Your task to perform on an android device: toggle show notifications on the lock screen Image 0: 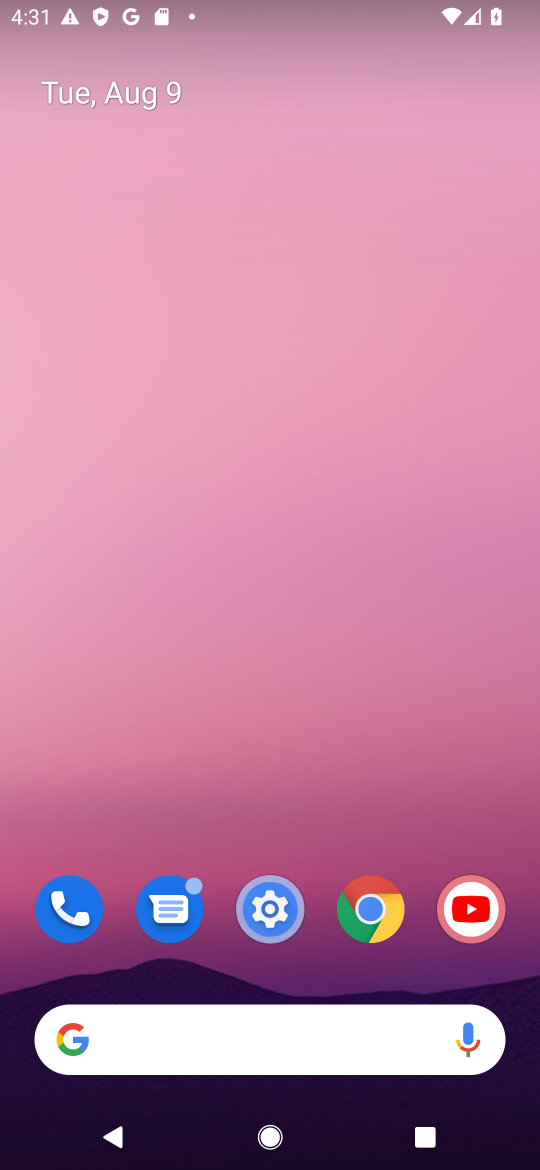
Step 0: click (282, 895)
Your task to perform on an android device: toggle show notifications on the lock screen Image 1: 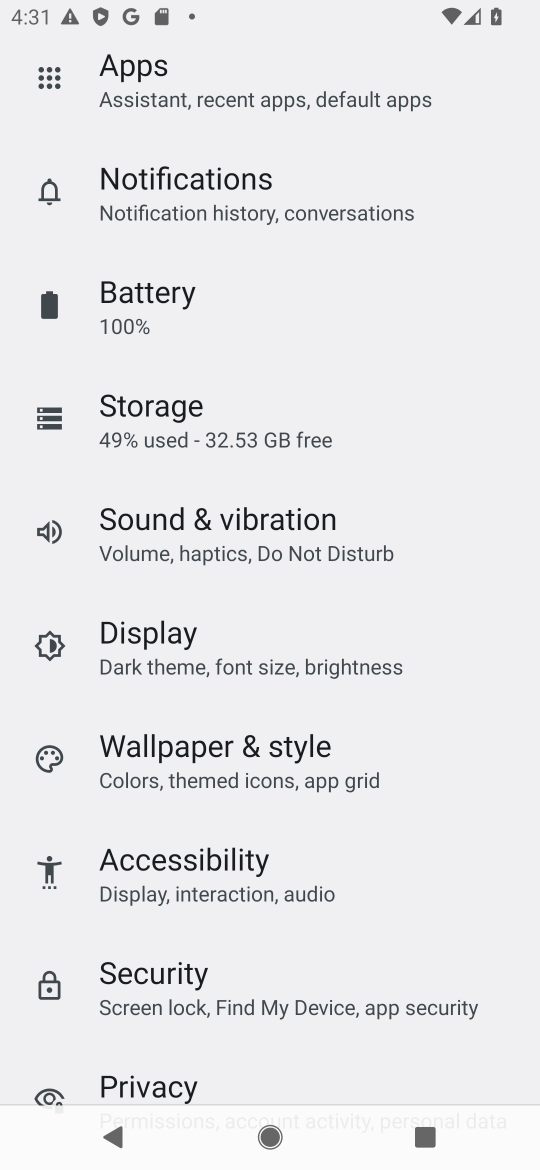
Step 1: drag from (338, 842) to (494, 111)
Your task to perform on an android device: toggle show notifications on the lock screen Image 2: 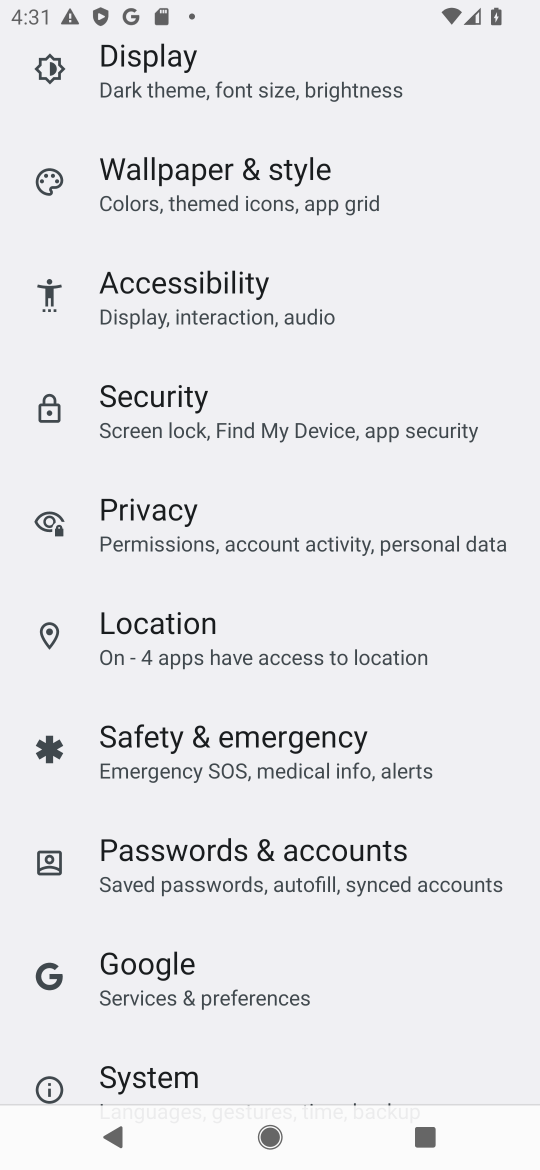
Step 2: drag from (340, 969) to (534, 356)
Your task to perform on an android device: toggle show notifications on the lock screen Image 3: 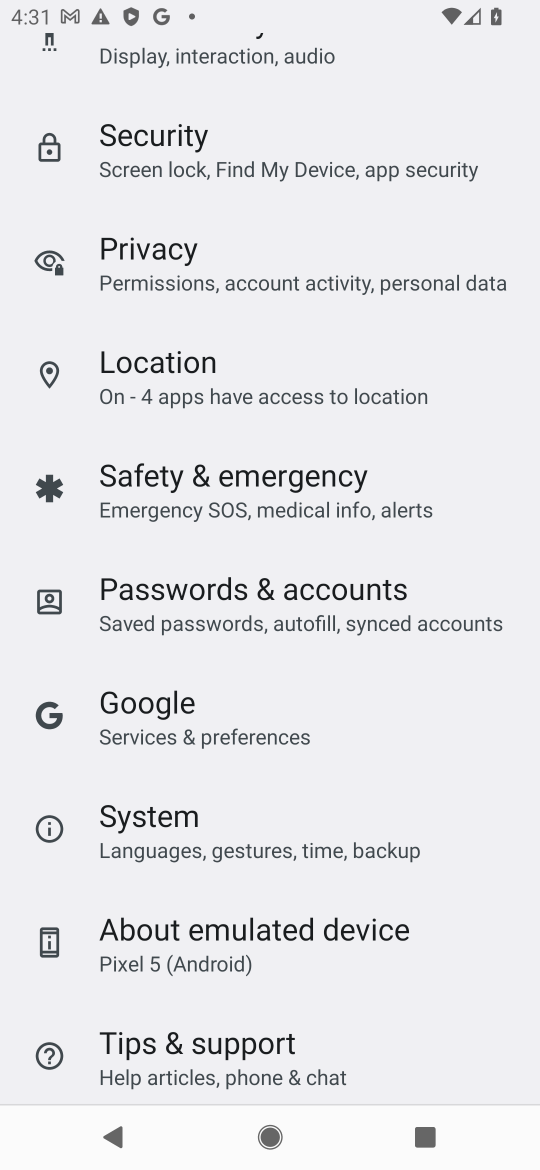
Step 3: drag from (275, 360) to (222, 789)
Your task to perform on an android device: toggle show notifications on the lock screen Image 4: 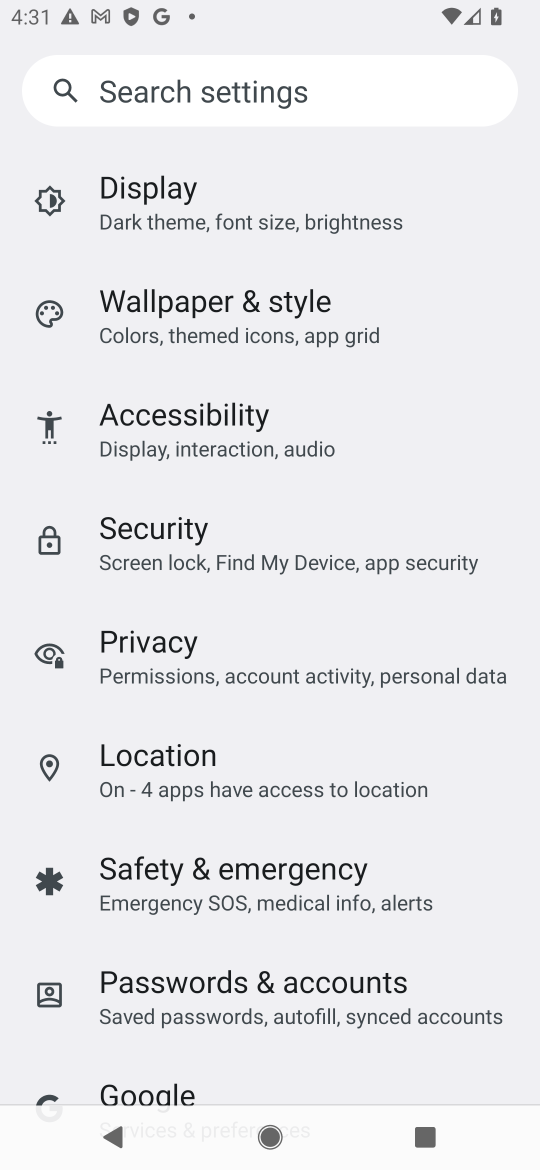
Step 4: drag from (330, 246) to (230, 555)
Your task to perform on an android device: toggle show notifications on the lock screen Image 5: 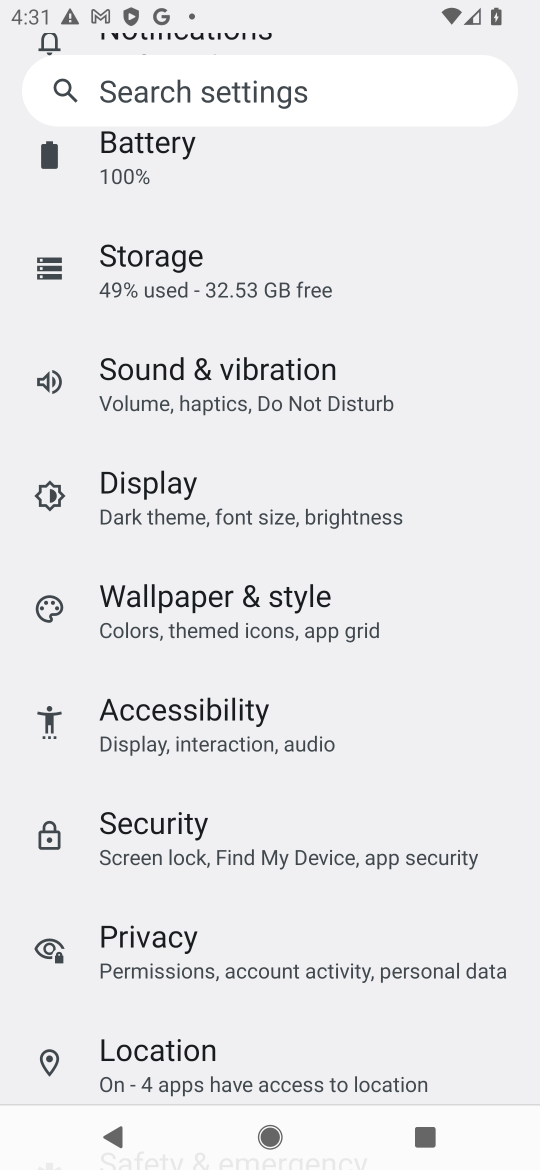
Step 5: drag from (76, 194) to (33, 456)
Your task to perform on an android device: toggle show notifications on the lock screen Image 6: 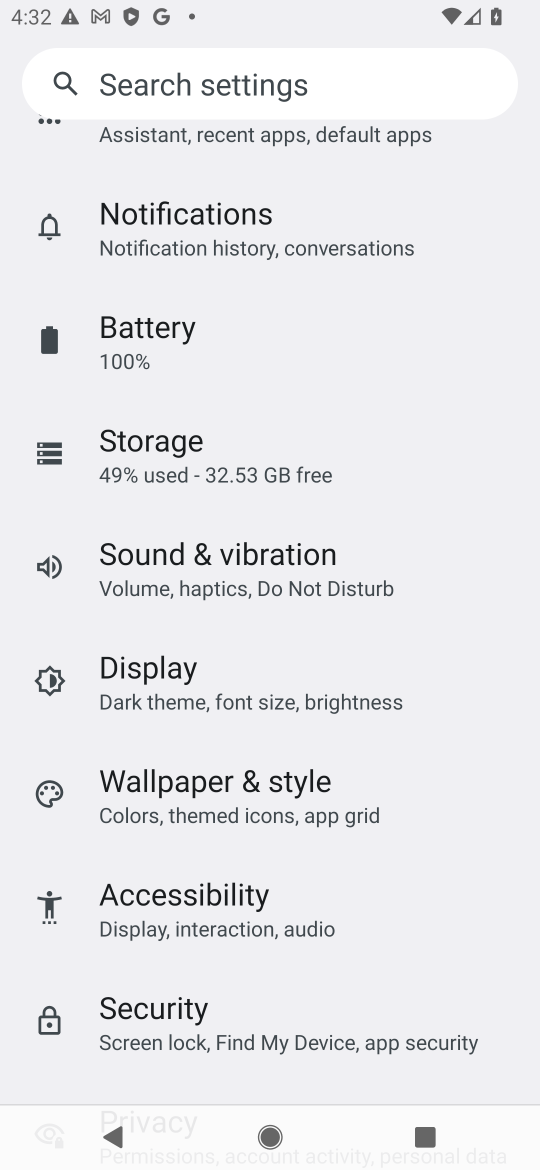
Step 6: click (226, 225)
Your task to perform on an android device: toggle show notifications on the lock screen Image 7: 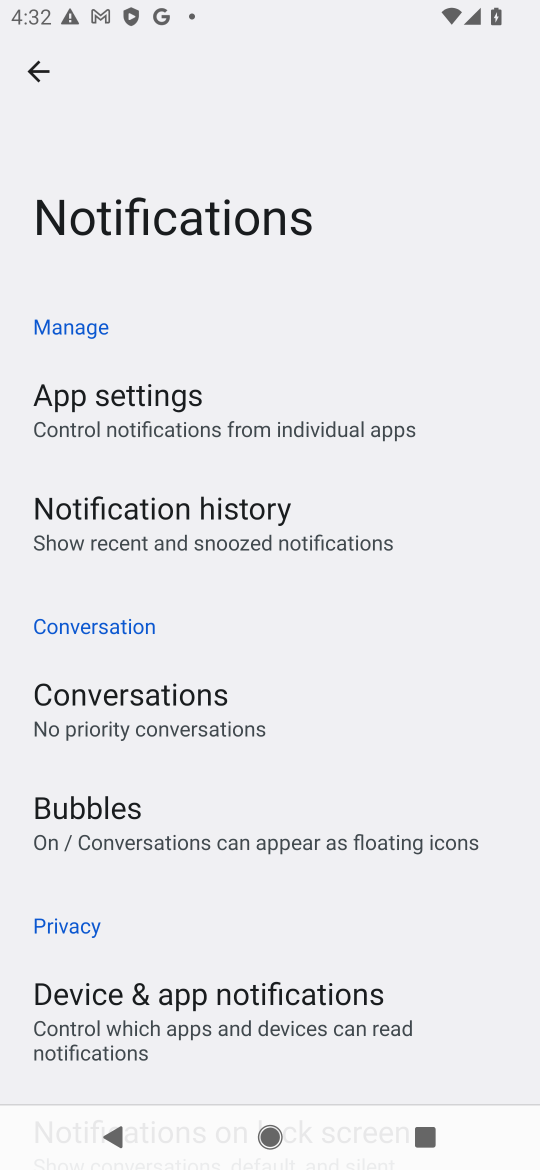
Step 7: drag from (100, 951) to (135, 496)
Your task to perform on an android device: toggle show notifications on the lock screen Image 8: 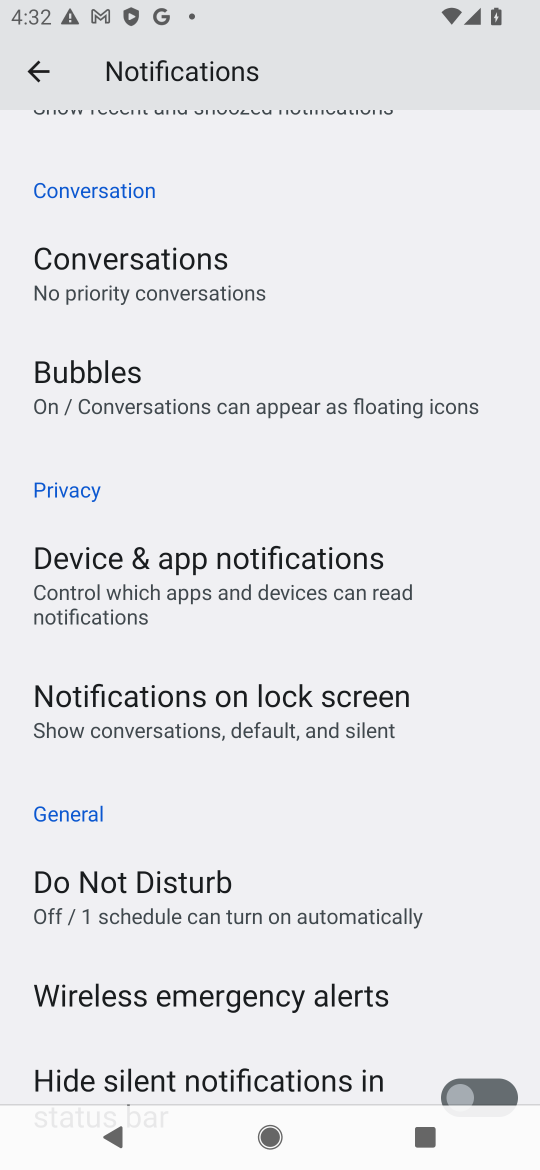
Step 8: click (131, 826)
Your task to perform on an android device: toggle show notifications on the lock screen Image 9: 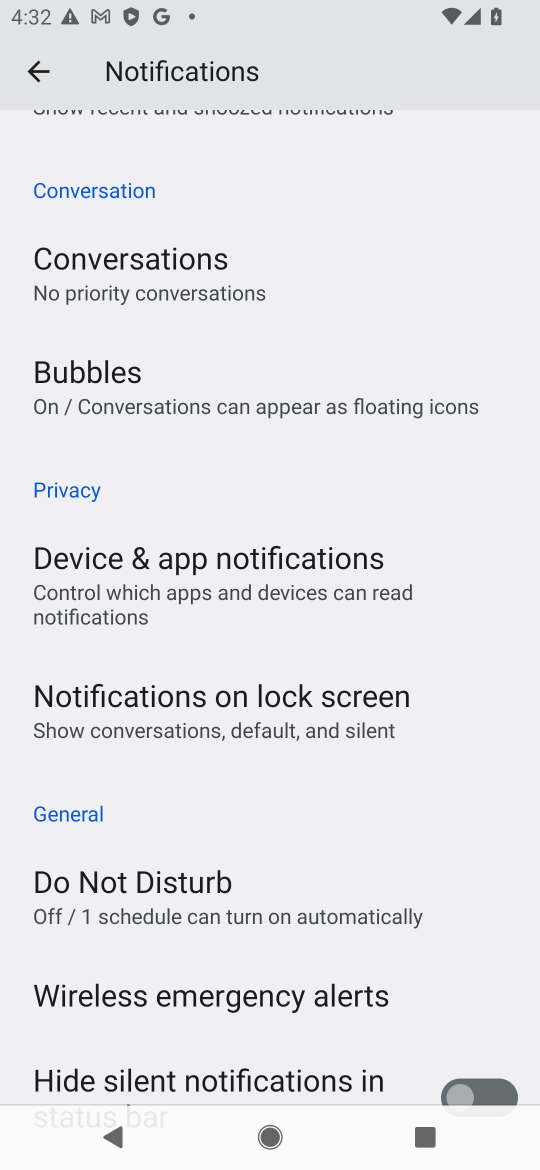
Step 9: click (165, 741)
Your task to perform on an android device: toggle show notifications on the lock screen Image 10: 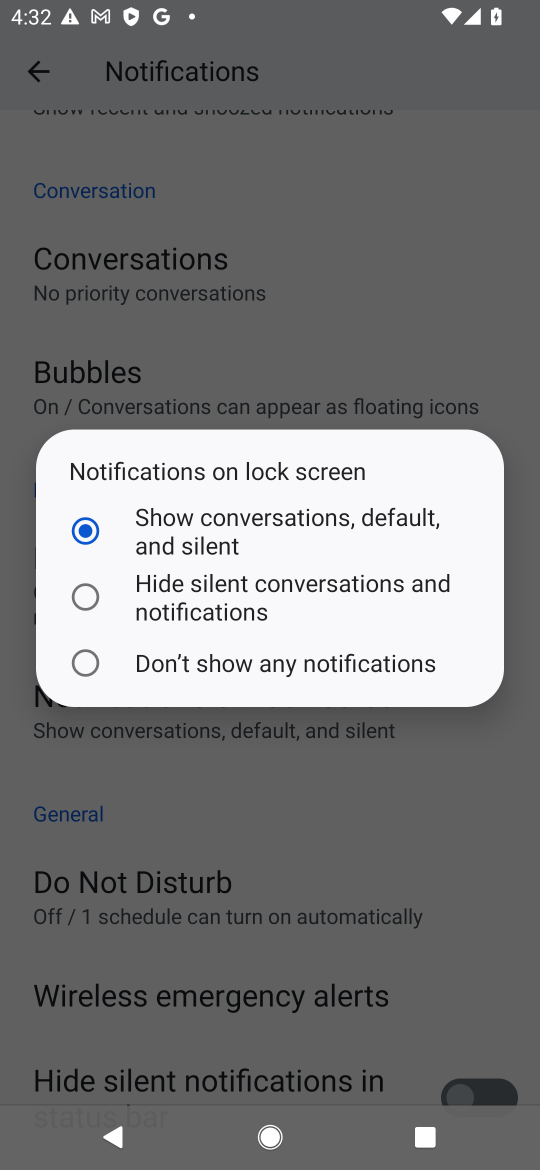
Step 10: click (254, 658)
Your task to perform on an android device: toggle show notifications on the lock screen Image 11: 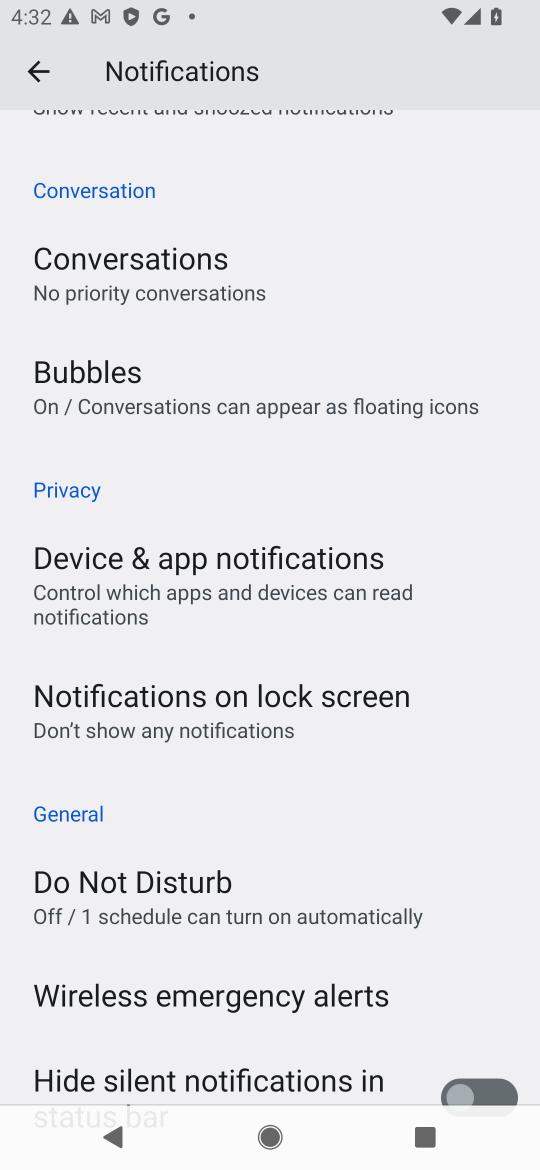
Step 11: task complete